Your task to perform on an android device: Go to Yahoo.com Image 0: 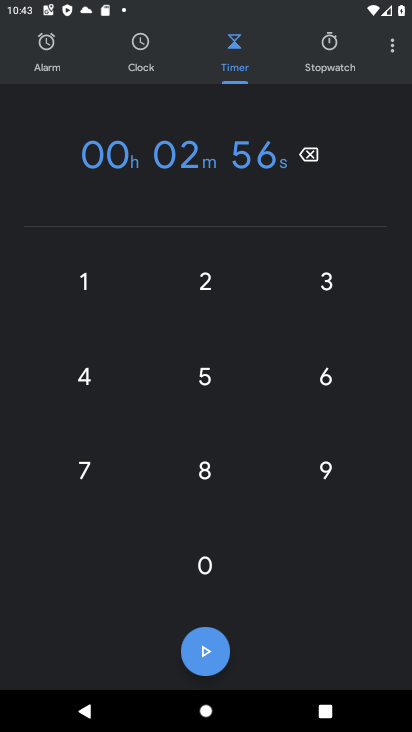
Step 0: press home button
Your task to perform on an android device: Go to Yahoo.com Image 1: 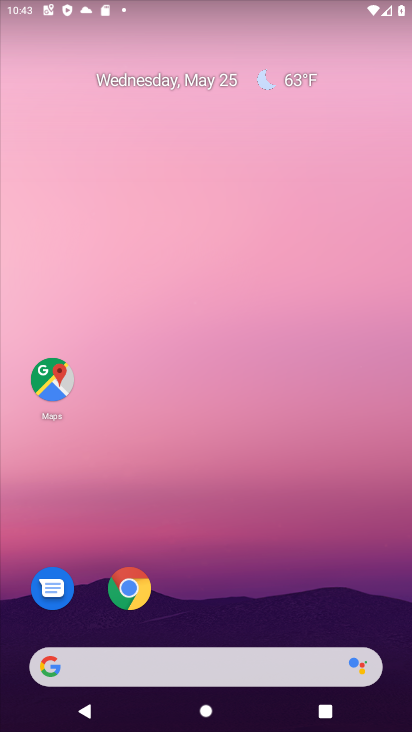
Step 1: click (141, 595)
Your task to perform on an android device: Go to Yahoo.com Image 2: 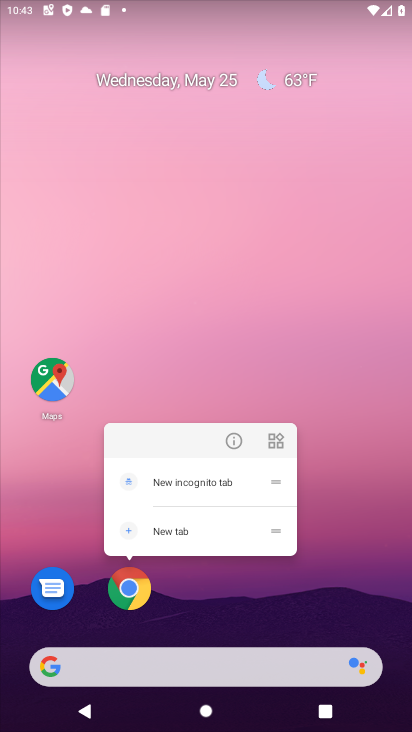
Step 2: click (173, 525)
Your task to perform on an android device: Go to Yahoo.com Image 3: 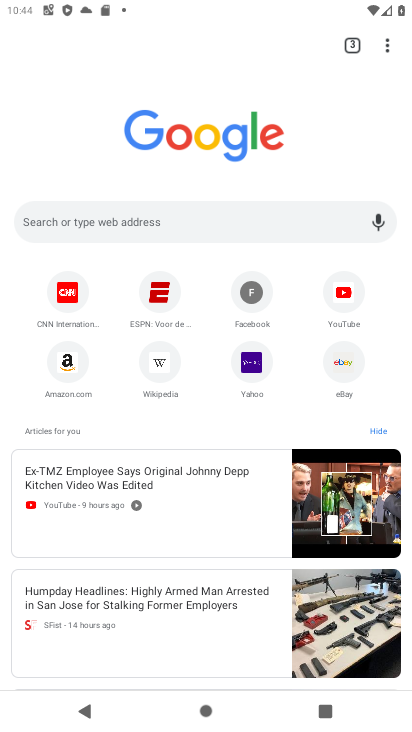
Step 3: click (253, 363)
Your task to perform on an android device: Go to Yahoo.com Image 4: 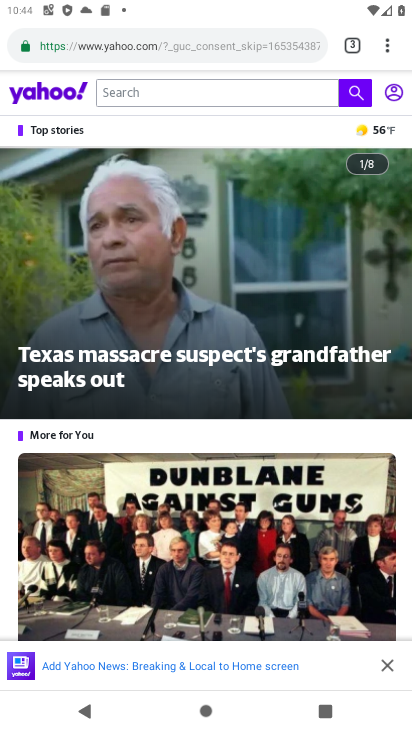
Step 4: task complete